Your task to perform on an android device: turn off location Image 0: 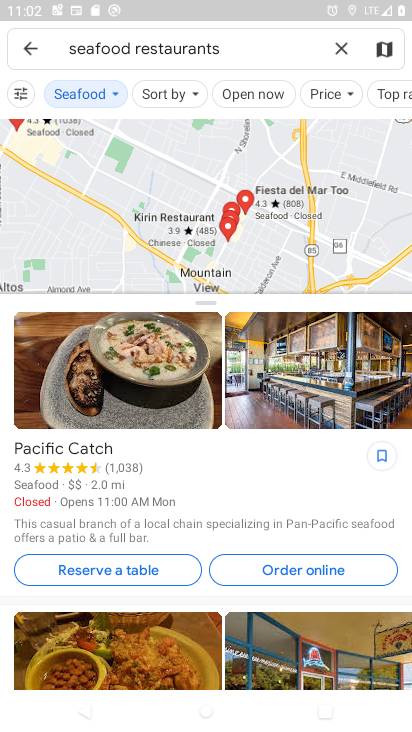
Step 0: press home button
Your task to perform on an android device: turn off location Image 1: 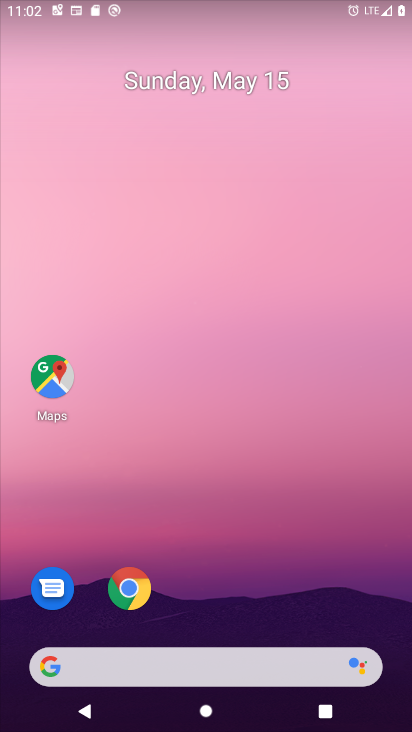
Step 1: drag from (222, 595) to (210, 332)
Your task to perform on an android device: turn off location Image 2: 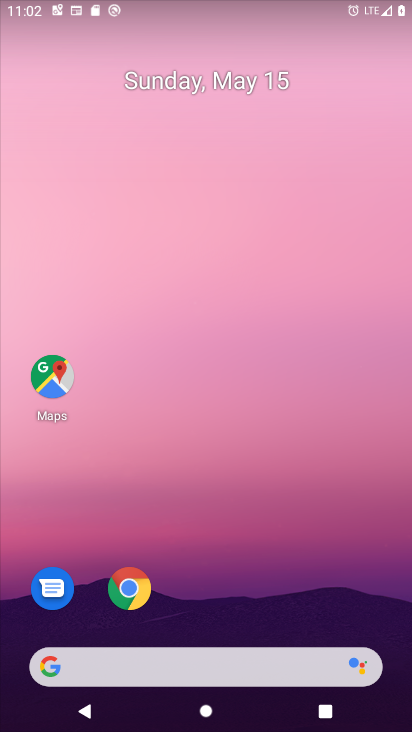
Step 2: drag from (216, 567) to (206, 97)
Your task to perform on an android device: turn off location Image 3: 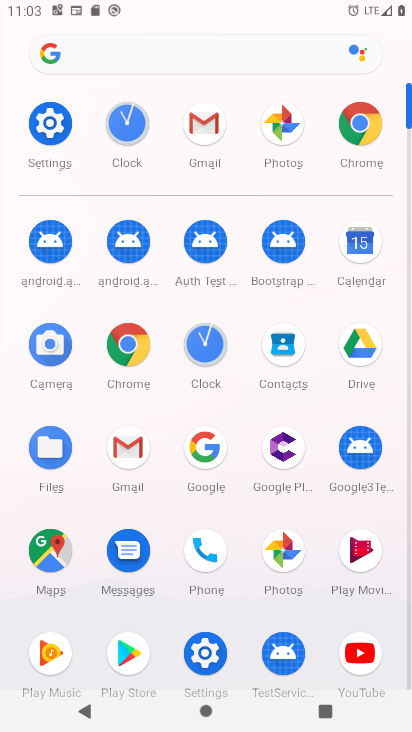
Step 3: click (48, 134)
Your task to perform on an android device: turn off location Image 4: 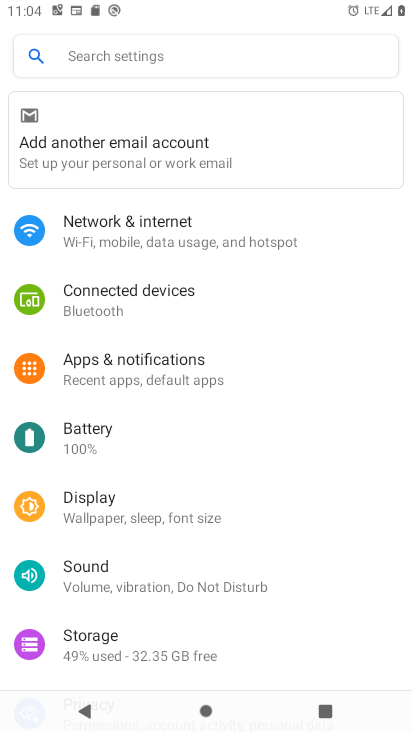
Step 4: drag from (277, 498) to (210, 115)
Your task to perform on an android device: turn off location Image 5: 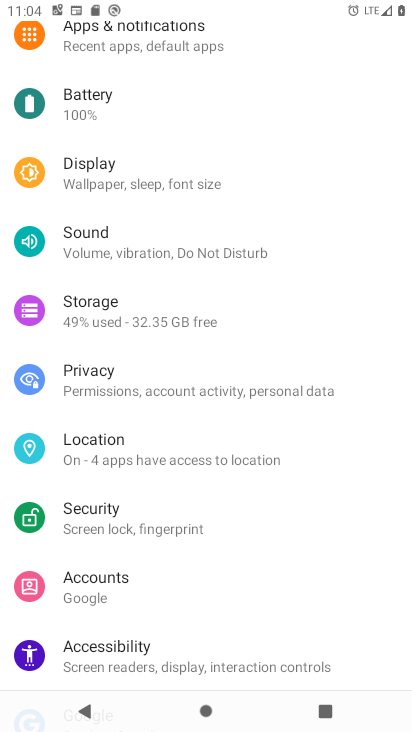
Step 5: click (128, 458)
Your task to perform on an android device: turn off location Image 6: 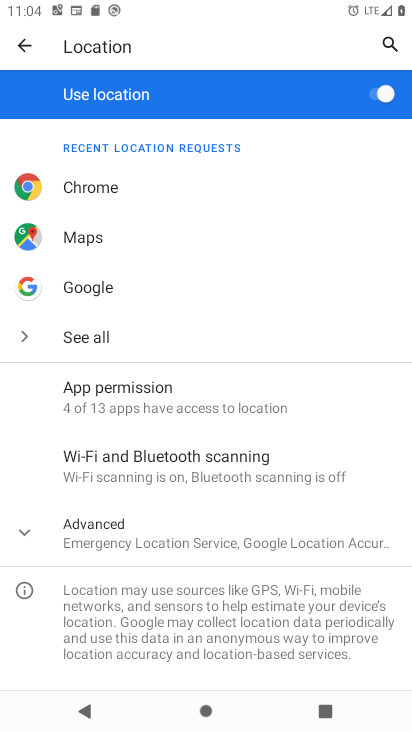
Step 6: click (389, 93)
Your task to perform on an android device: turn off location Image 7: 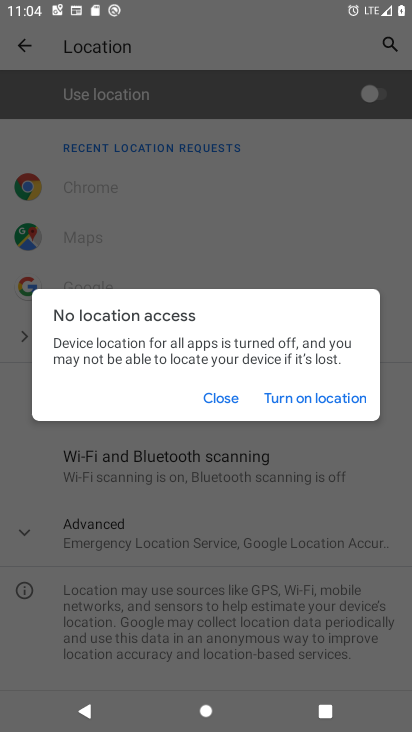
Step 7: click (222, 394)
Your task to perform on an android device: turn off location Image 8: 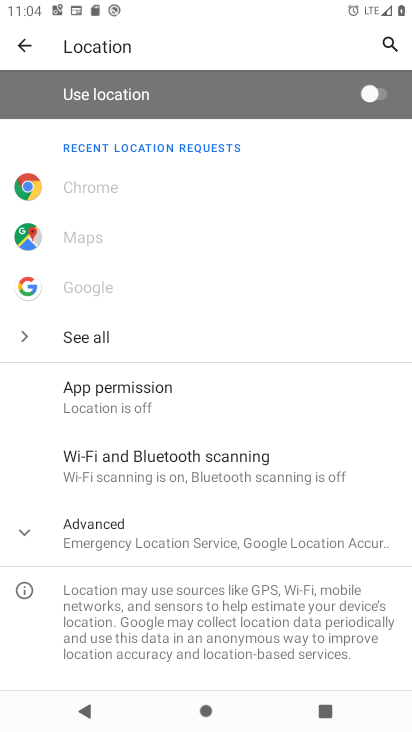
Step 8: click (239, 627)
Your task to perform on an android device: turn off location Image 9: 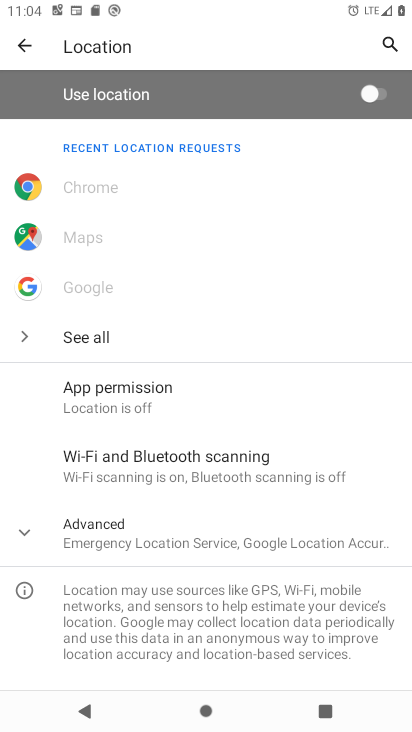
Step 9: click (243, 289)
Your task to perform on an android device: turn off location Image 10: 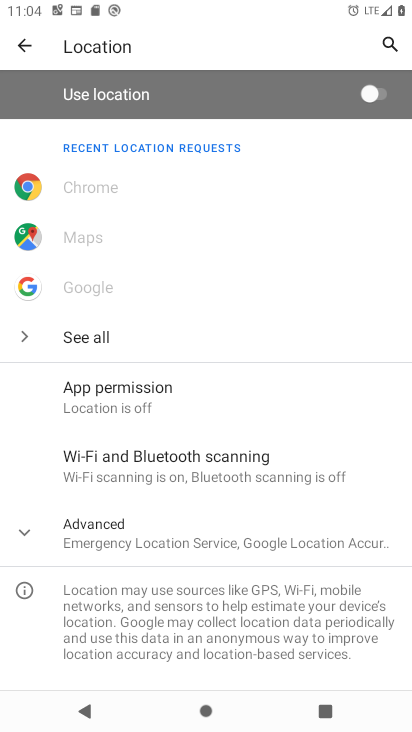
Step 10: click (209, 525)
Your task to perform on an android device: turn off location Image 11: 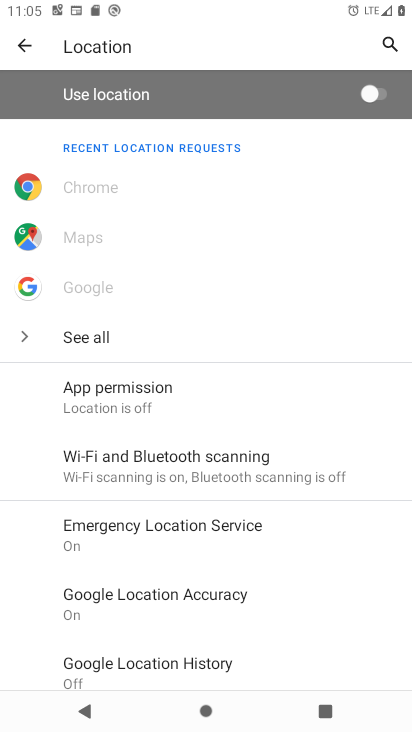
Step 11: task complete